Your task to perform on an android device: What is the news today? Image 0: 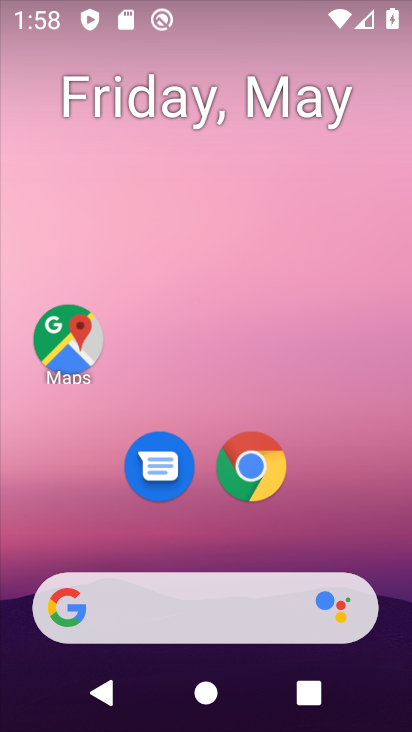
Step 0: click (277, 473)
Your task to perform on an android device: What is the news today? Image 1: 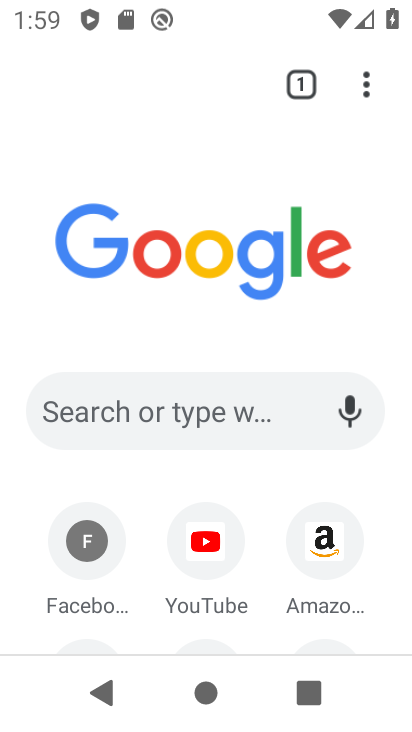
Step 1: click (226, 412)
Your task to perform on an android device: What is the news today? Image 2: 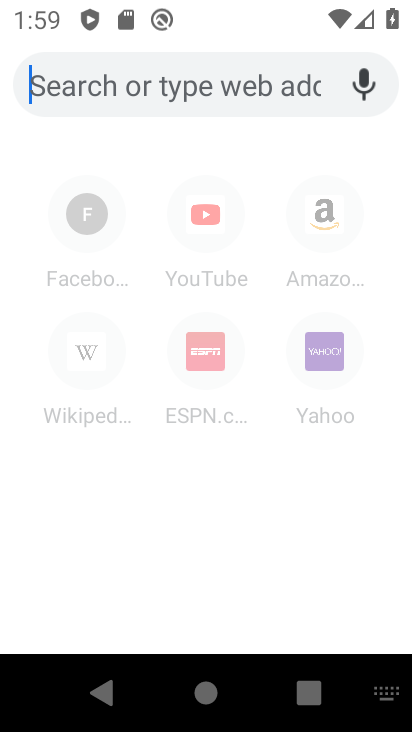
Step 2: type "What is the news today?"
Your task to perform on an android device: What is the news today? Image 3: 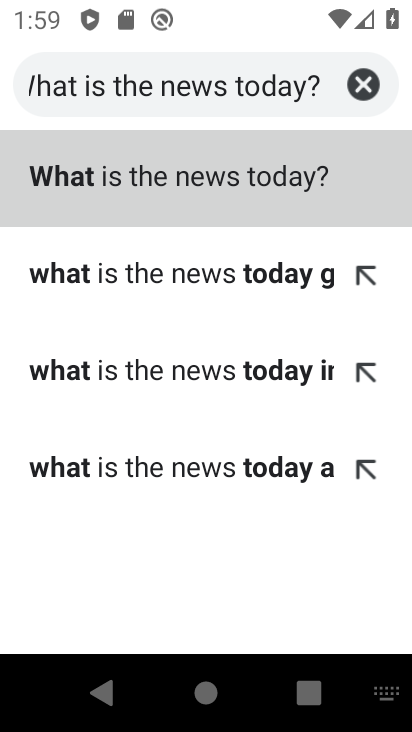
Step 3: click (138, 166)
Your task to perform on an android device: What is the news today? Image 4: 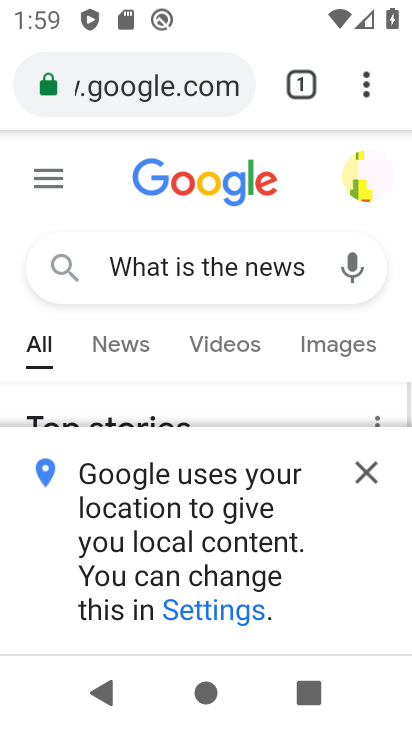
Step 4: click (366, 472)
Your task to perform on an android device: What is the news today? Image 5: 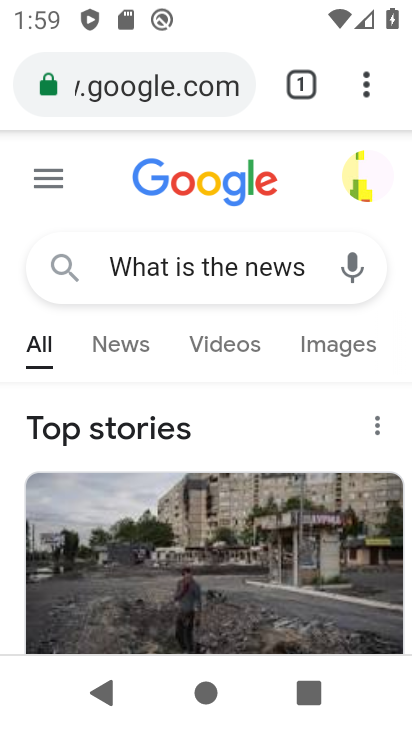
Step 5: click (123, 356)
Your task to perform on an android device: What is the news today? Image 6: 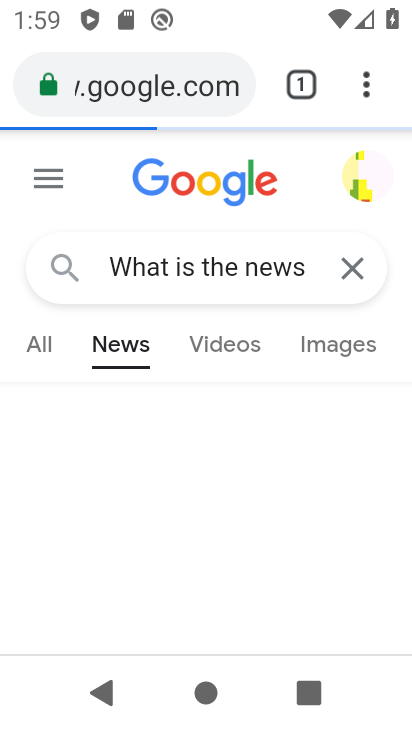
Step 6: click (123, 348)
Your task to perform on an android device: What is the news today? Image 7: 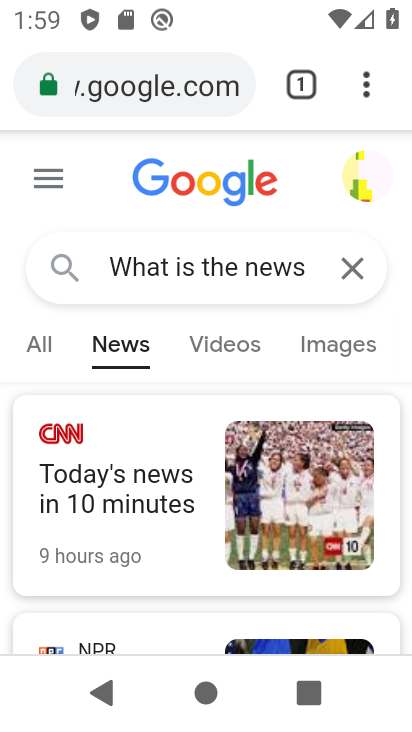
Step 7: task complete